Your task to perform on an android device: see tabs open on other devices in the chrome app Image 0: 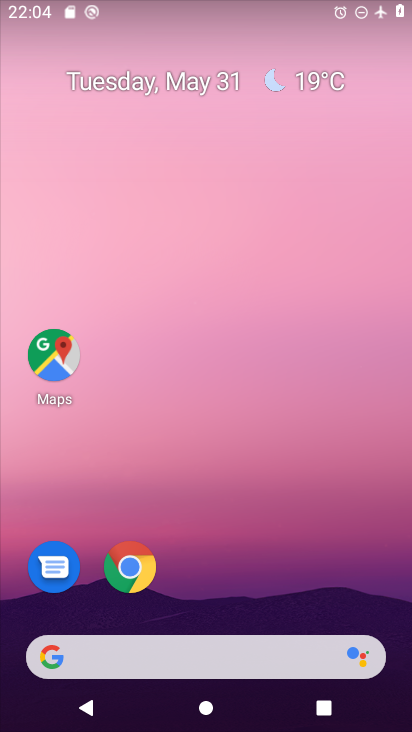
Step 0: drag from (218, 523) to (269, 249)
Your task to perform on an android device: see tabs open on other devices in the chrome app Image 1: 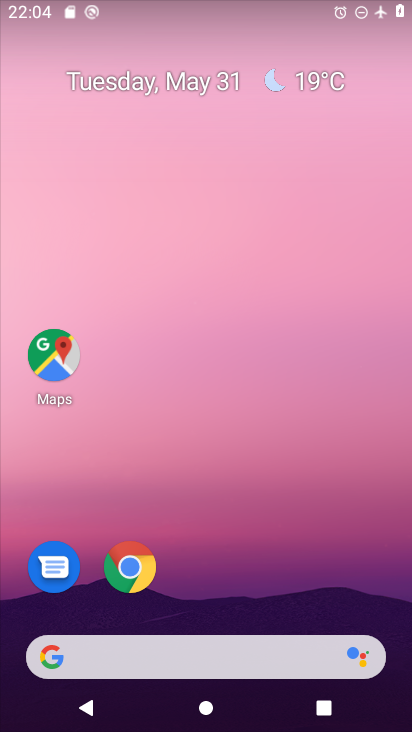
Step 1: drag from (220, 625) to (266, 186)
Your task to perform on an android device: see tabs open on other devices in the chrome app Image 2: 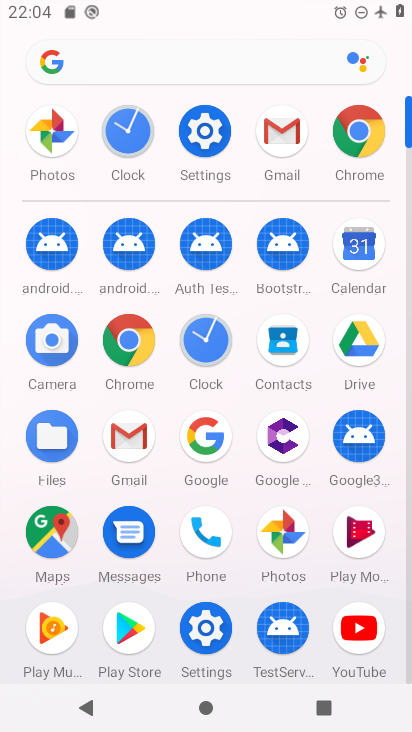
Step 2: click (364, 137)
Your task to perform on an android device: see tabs open on other devices in the chrome app Image 3: 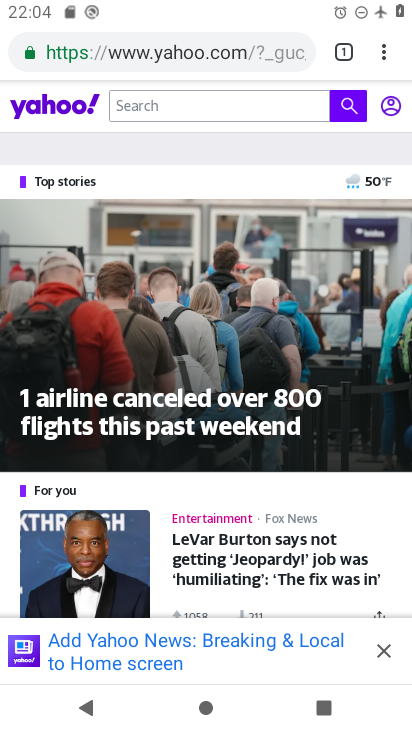
Step 3: click (342, 53)
Your task to perform on an android device: see tabs open on other devices in the chrome app Image 4: 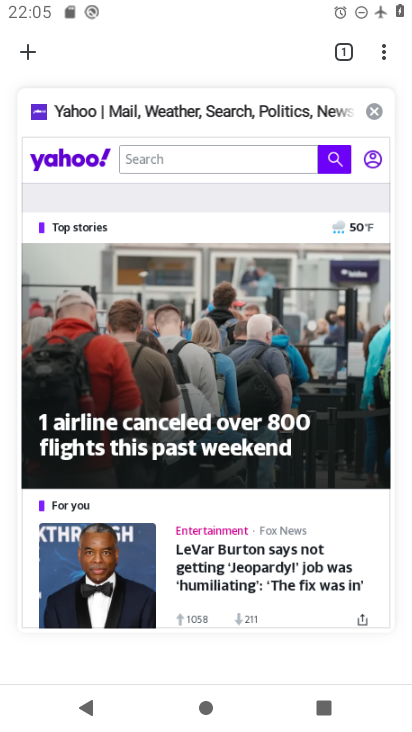
Step 4: task complete